Your task to perform on an android device: turn smart compose on in the gmail app Image 0: 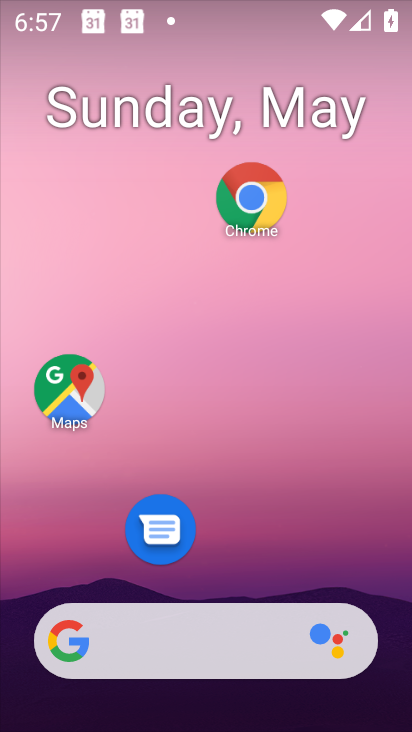
Step 0: drag from (257, 585) to (264, 196)
Your task to perform on an android device: turn smart compose on in the gmail app Image 1: 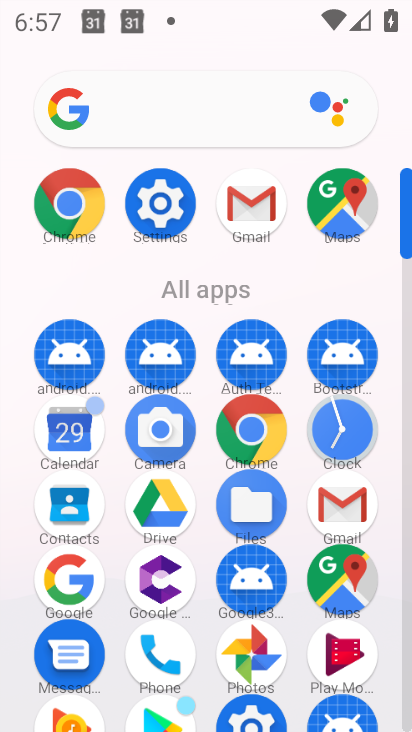
Step 1: click (257, 200)
Your task to perform on an android device: turn smart compose on in the gmail app Image 2: 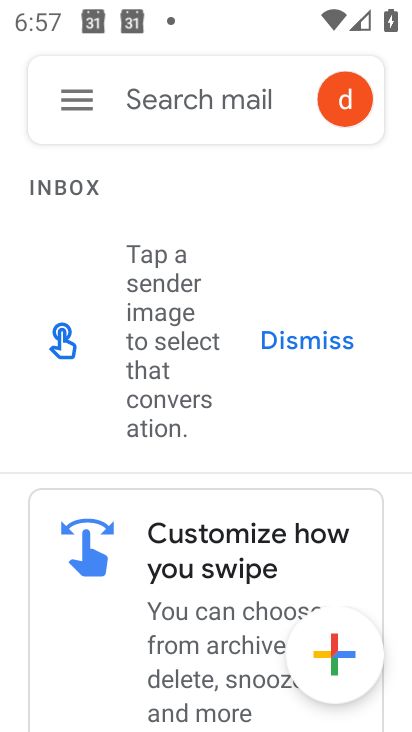
Step 2: click (67, 95)
Your task to perform on an android device: turn smart compose on in the gmail app Image 3: 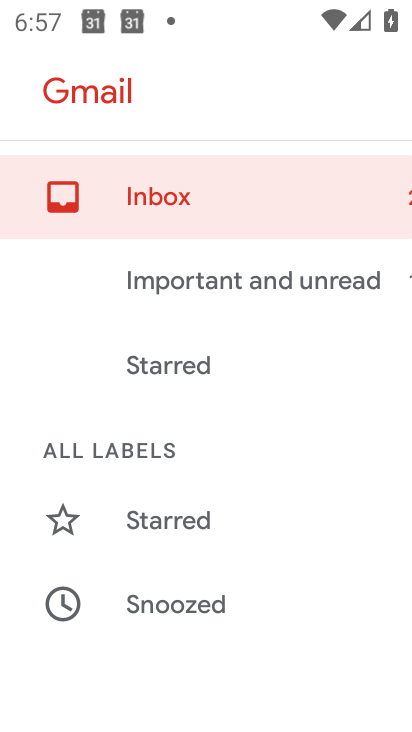
Step 3: drag from (242, 609) to (263, 344)
Your task to perform on an android device: turn smart compose on in the gmail app Image 4: 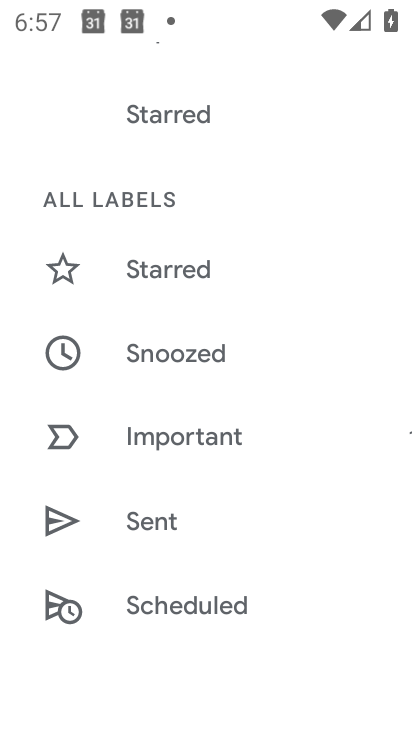
Step 4: drag from (168, 615) to (213, 307)
Your task to perform on an android device: turn smart compose on in the gmail app Image 5: 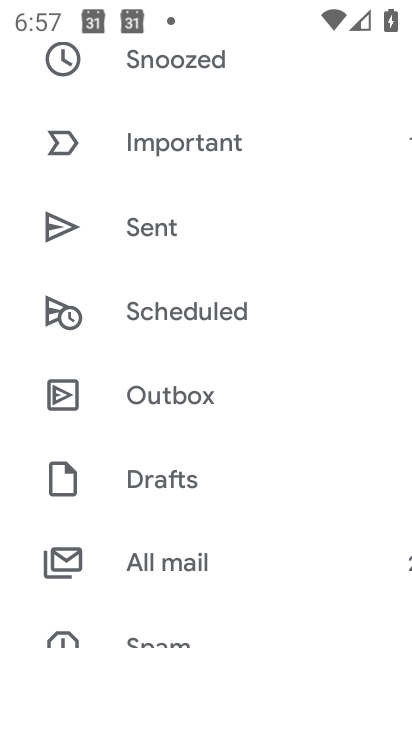
Step 5: drag from (142, 595) to (169, 353)
Your task to perform on an android device: turn smart compose on in the gmail app Image 6: 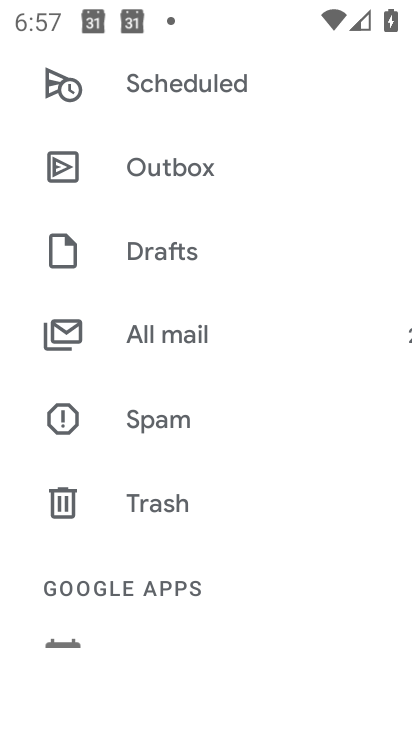
Step 6: drag from (151, 554) to (208, 268)
Your task to perform on an android device: turn smart compose on in the gmail app Image 7: 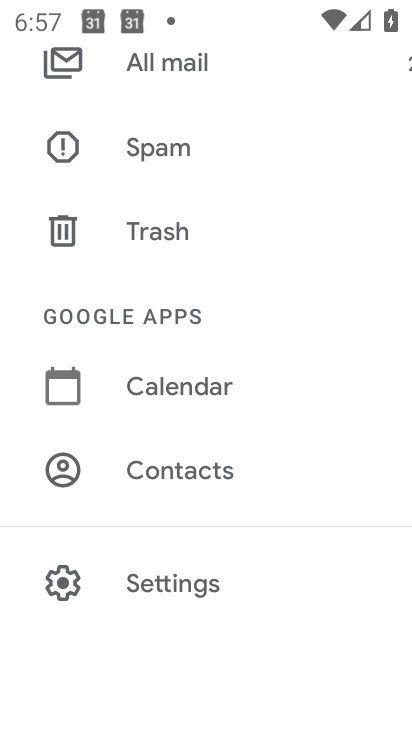
Step 7: click (163, 581)
Your task to perform on an android device: turn smart compose on in the gmail app Image 8: 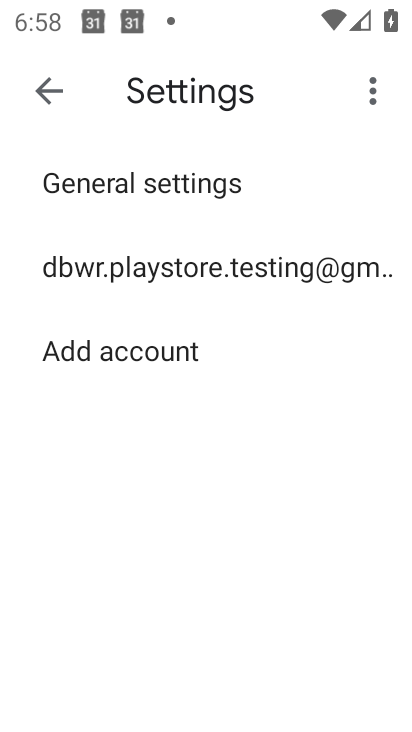
Step 8: click (164, 263)
Your task to perform on an android device: turn smart compose on in the gmail app Image 9: 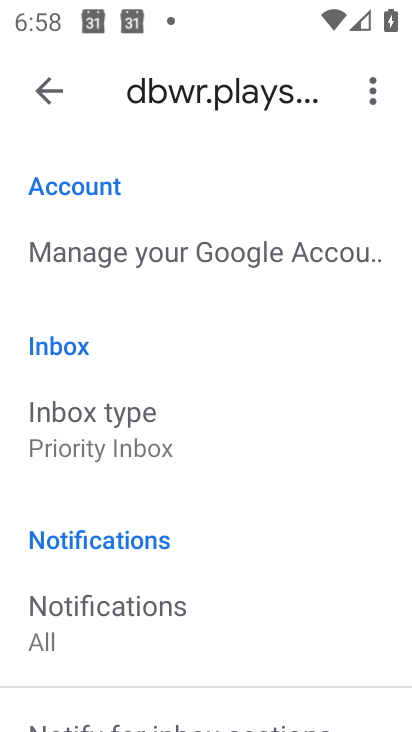
Step 9: task complete